Your task to perform on an android device: toggle airplane mode Image 0: 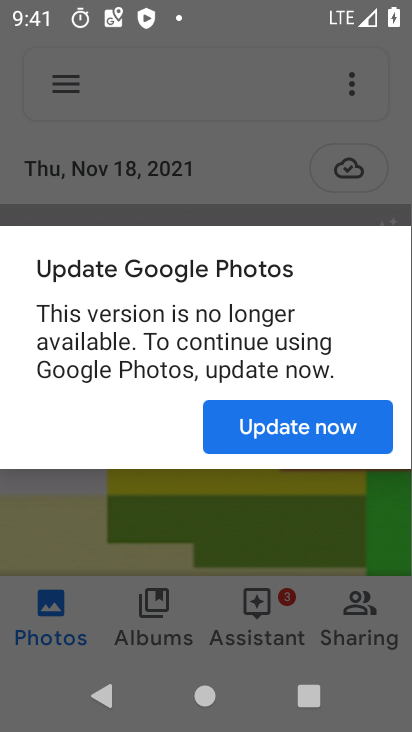
Step 0: press home button
Your task to perform on an android device: toggle airplane mode Image 1: 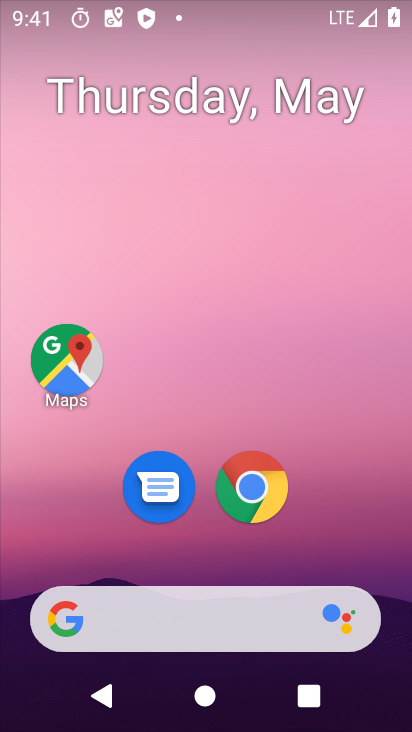
Step 1: drag from (199, 670) to (324, 135)
Your task to perform on an android device: toggle airplane mode Image 2: 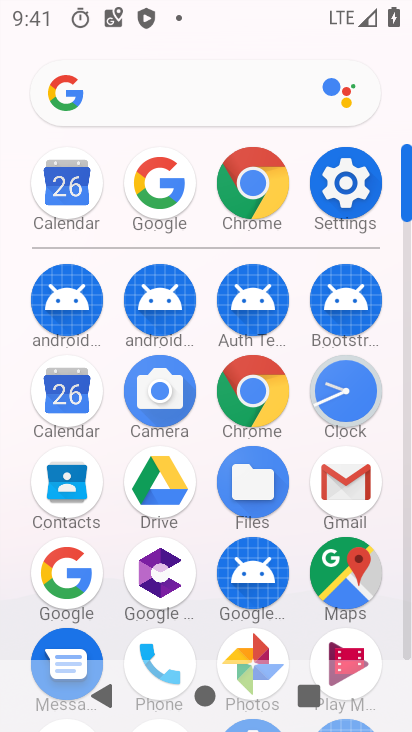
Step 2: click (344, 183)
Your task to perform on an android device: toggle airplane mode Image 3: 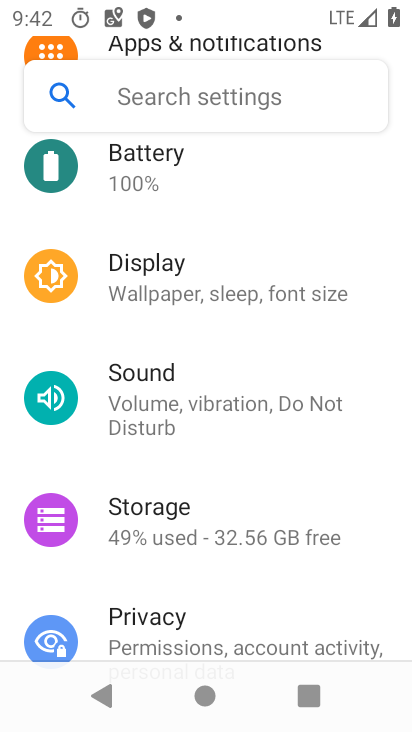
Step 3: drag from (234, 254) to (186, 729)
Your task to perform on an android device: toggle airplane mode Image 4: 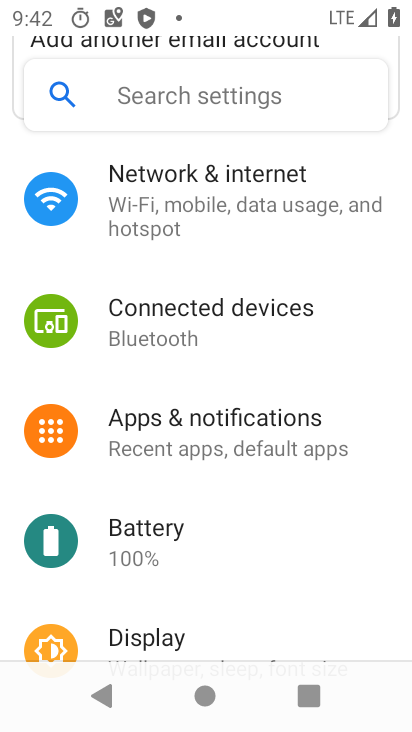
Step 4: drag from (171, 178) to (181, 728)
Your task to perform on an android device: toggle airplane mode Image 5: 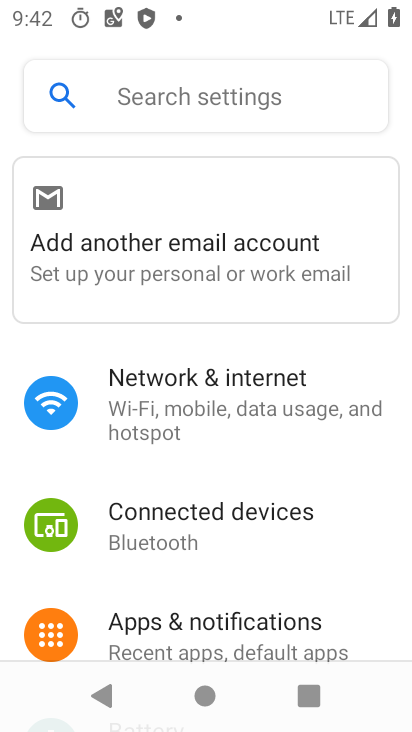
Step 5: click (234, 392)
Your task to perform on an android device: toggle airplane mode Image 6: 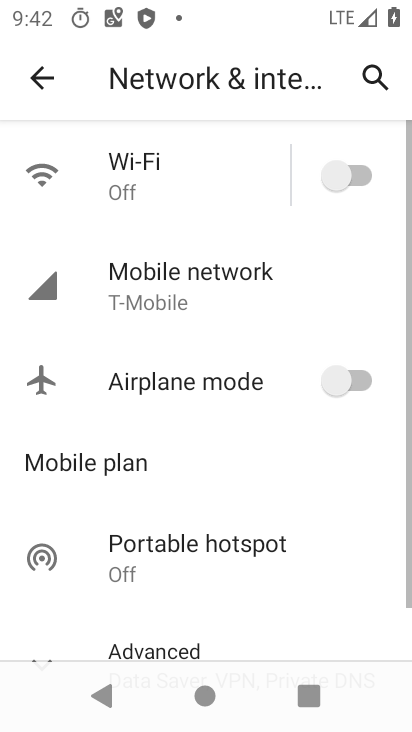
Step 6: click (234, 392)
Your task to perform on an android device: toggle airplane mode Image 7: 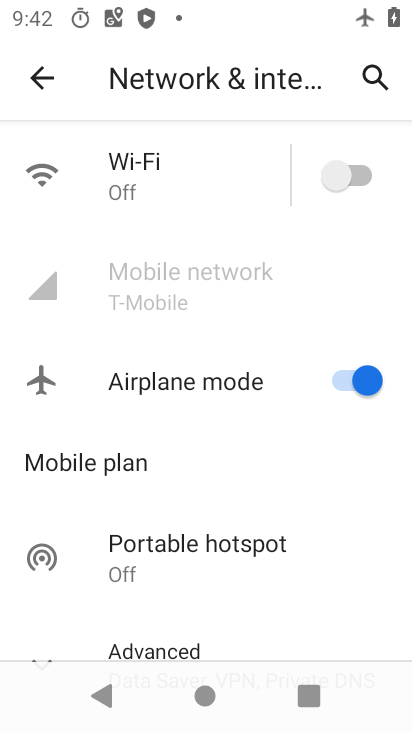
Step 7: task complete